Your task to perform on an android device: Open Yahoo.com Image 0: 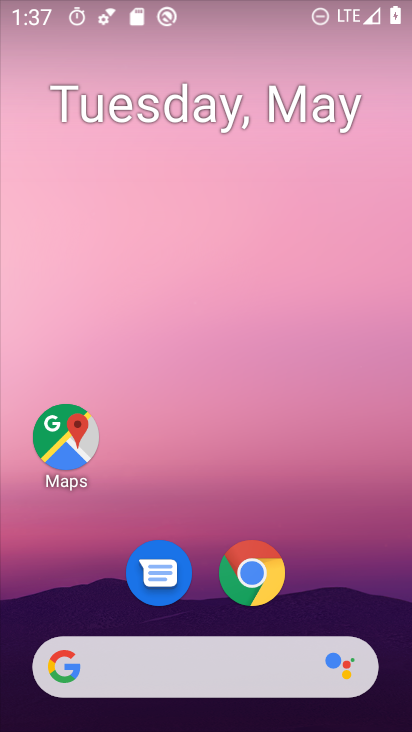
Step 0: click (246, 577)
Your task to perform on an android device: Open Yahoo.com Image 1: 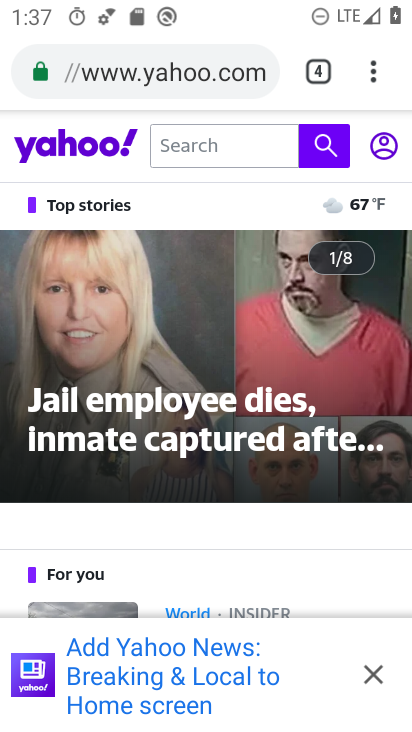
Step 1: task complete